Your task to perform on an android device: Open Chrome and go to the settings page Image 0: 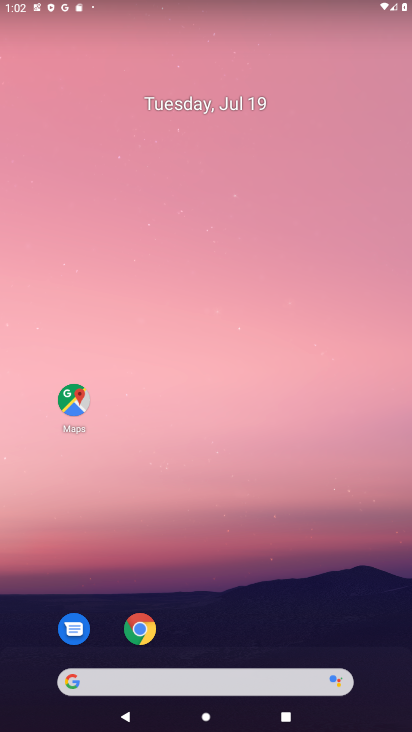
Step 0: click (152, 629)
Your task to perform on an android device: Open Chrome and go to the settings page Image 1: 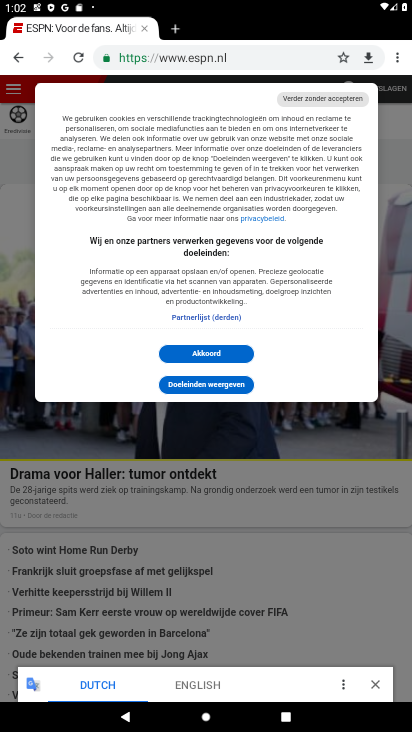
Step 1: click (396, 52)
Your task to perform on an android device: Open Chrome and go to the settings page Image 2: 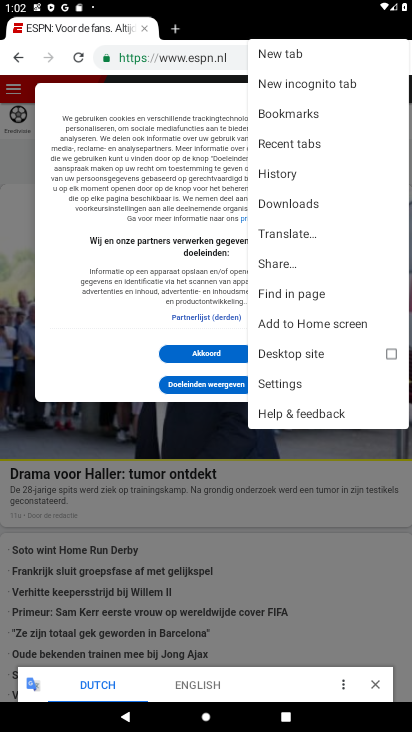
Step 2: click (288, 382)
Your task to perform on an android device: Open Chrome and go to the settings page Image 3: 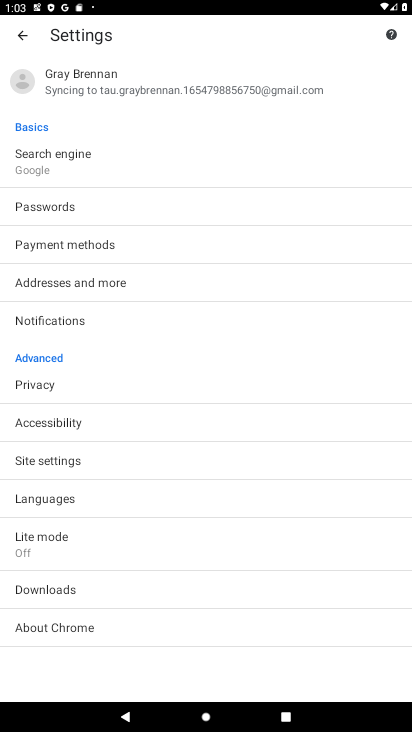
Step 3: task complete